Your task to perform on an android device: manage bookmarks in the chrome app Image 0: 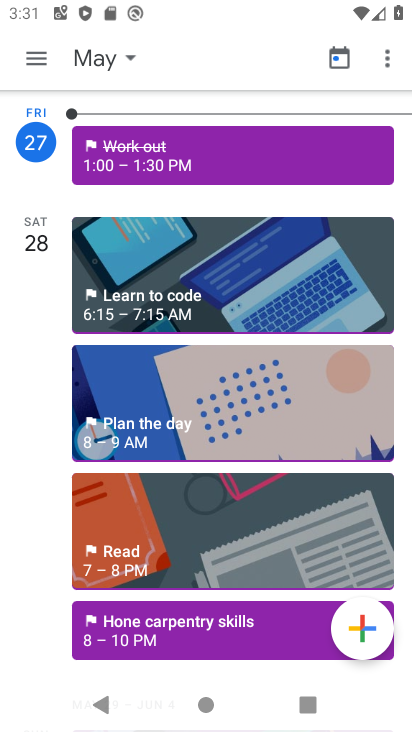
Step 0: press home button
Your task to perform on an android device: manage bookmarks in the chrome app Image 1: 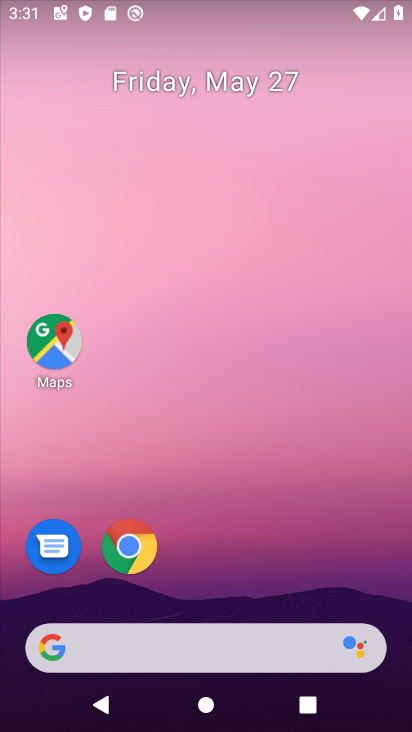
Step 1: drag from (410, 703) to (352, 143)
Your task to perform on an android device: manage bookmarks in the chrome app Image 2: 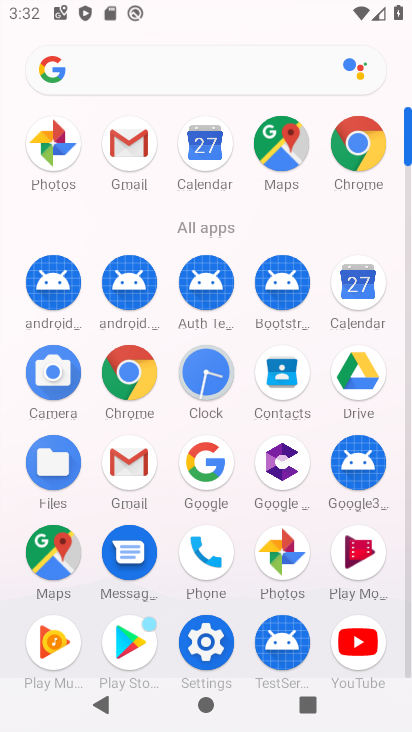
Step 2: click (133, 367)
Your task to perform on an android device: manage bookmarks in the chrome app Image 3: 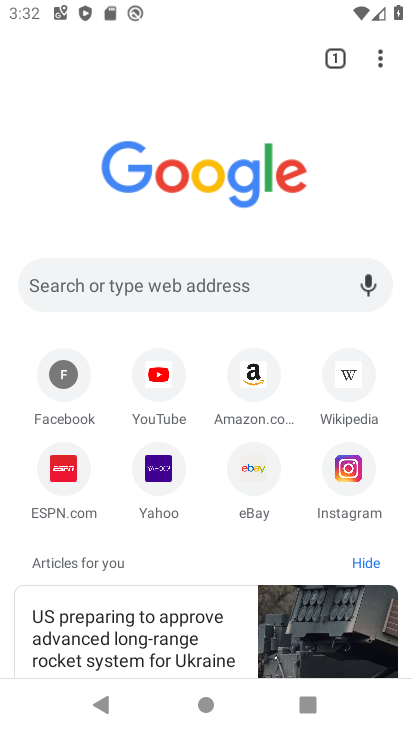
Step 3: click (379, 54)
Your task to perform on an android device: manage bookmarks in the chrome app Image 4: 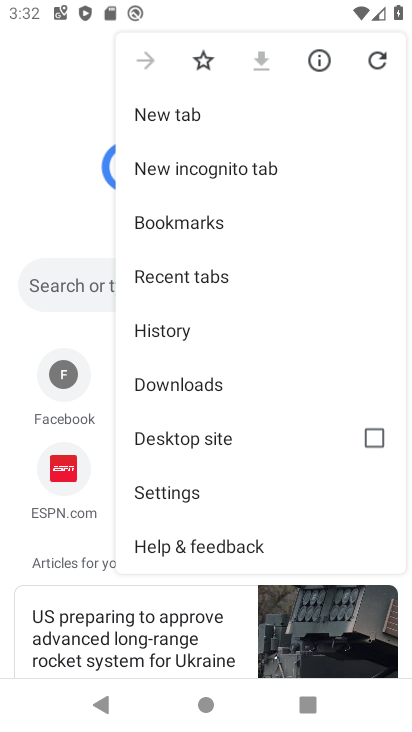
Step 4: click (169, 216)
Your task to perform on an android device: manage bookmarks in the chrome app Image 5: 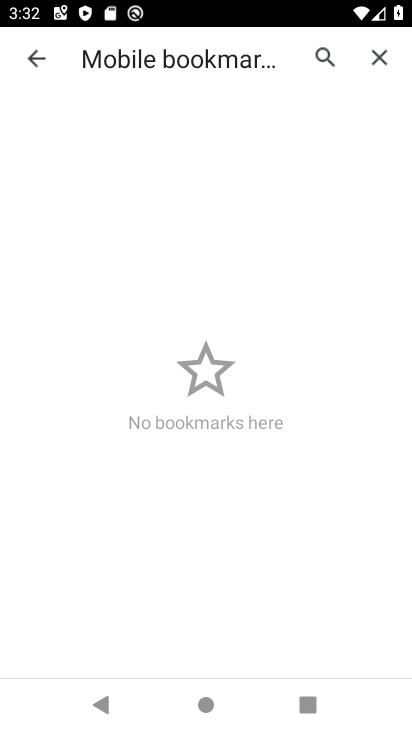
Step 5: task complete